Your task to perform on an android device: check battery use Image 0: 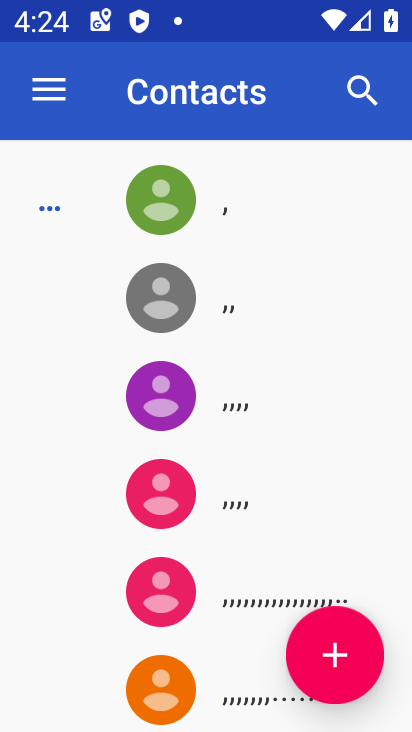
Step 0: press home button
Your task to perform on an android device: check battery use Image 1: 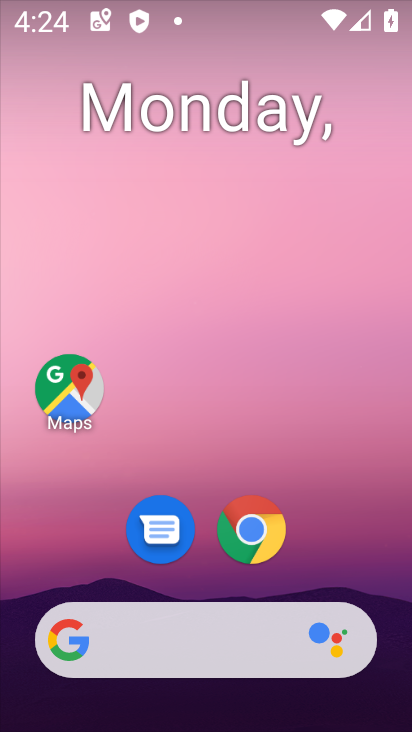
Step 1: drag from (203, 717) to (189, 126)
Your task to perform on an android device: check battery use Image 2: 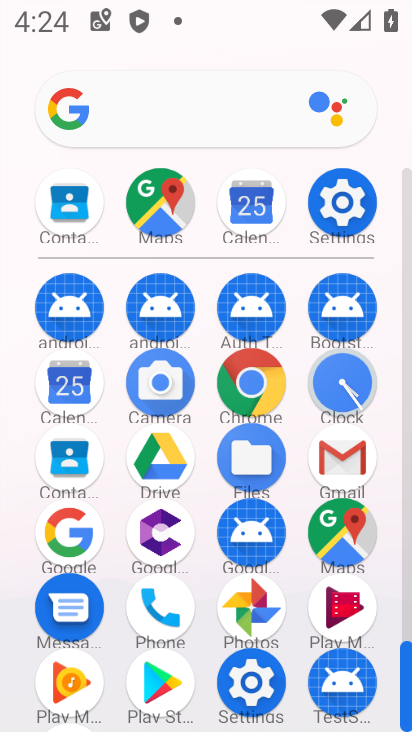
Step 2: click (342, 198)
Your task to perform on an android device: check battery use Image 3: 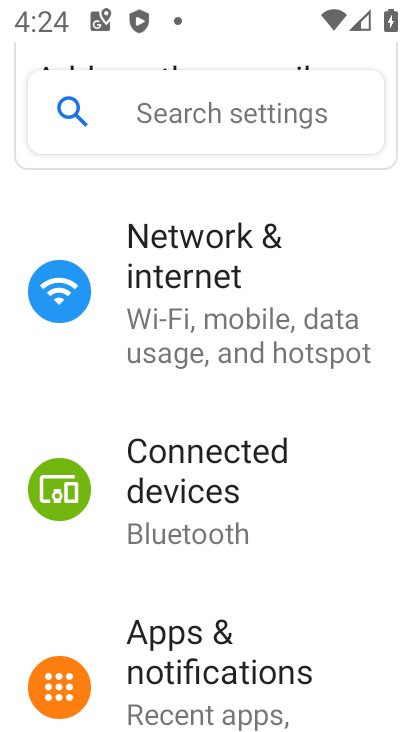
Step 3: drag from (210, 689) to (210, 255)
Your task to perform on an android device: check battery use Image 4: 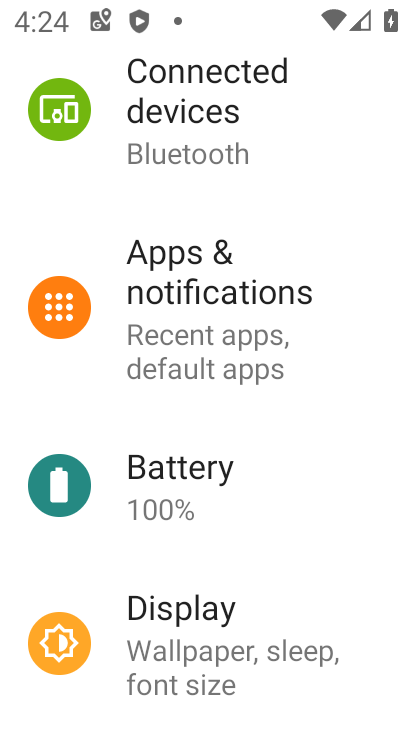
Step 4: click (173, 476)
Your task to perform on an android device: check battery use Image 5: 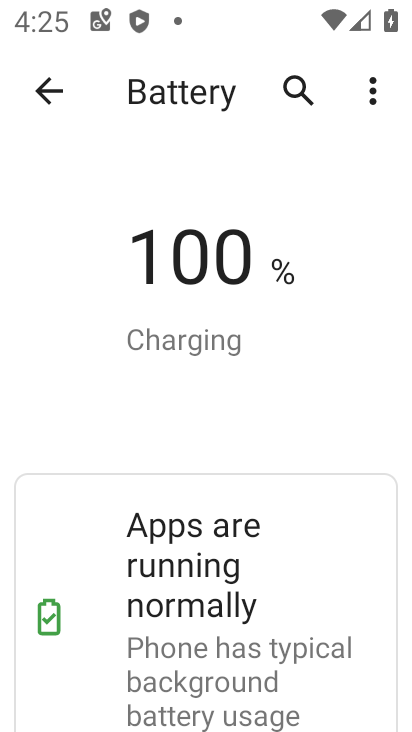
Step 5: click (372, 93)
Your task to perform on an android device: check battery use Image 6: 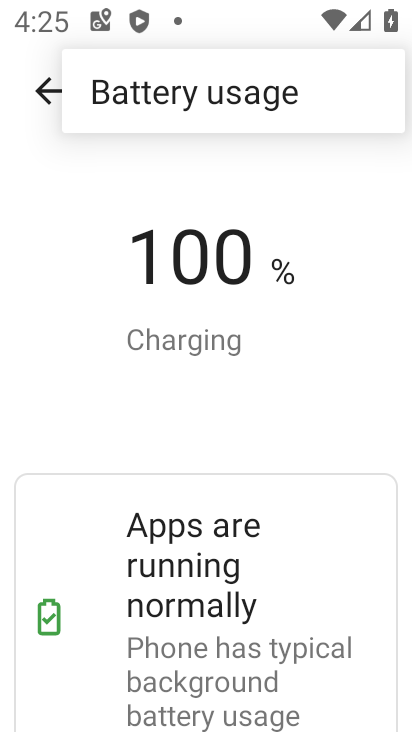
Step 6: click (209, 94)
Your task to perform on an android device: check battery use Image 7: 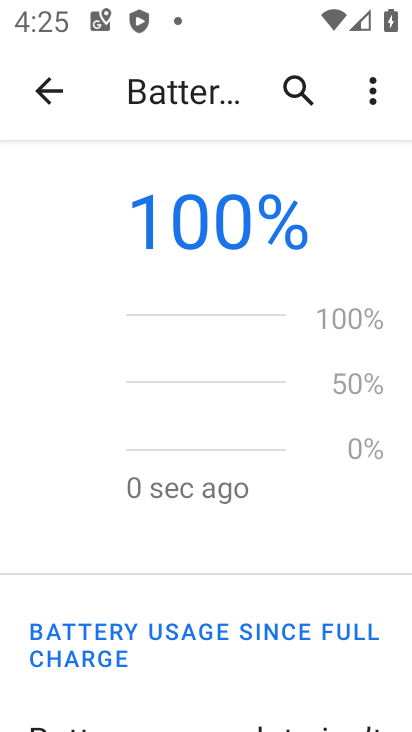
Step 7: task complete